Your task to perform on an android device: Go to display settings Image 0: 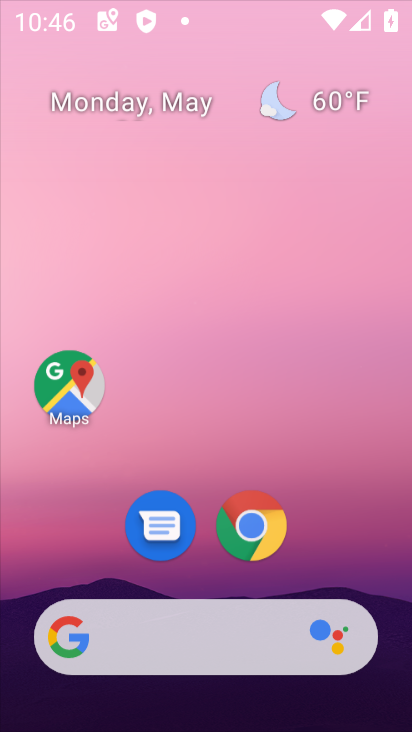
Step 0: click (246, 59)
Your task to perform on an android device: Go to display settings Image 1: 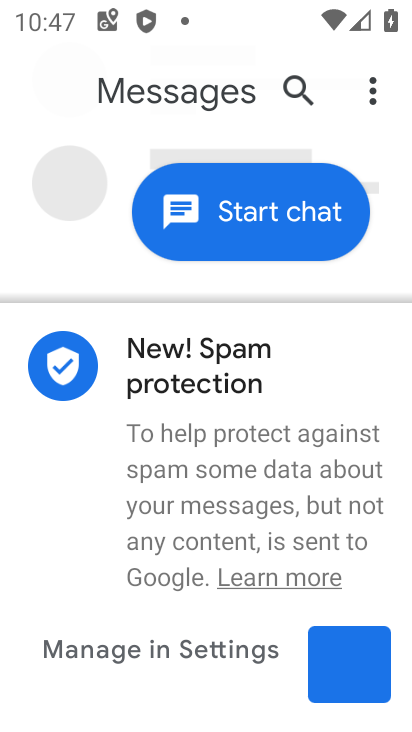
Step 1: press home button
Your task to perform on an android device: Go to display settings Image 2: 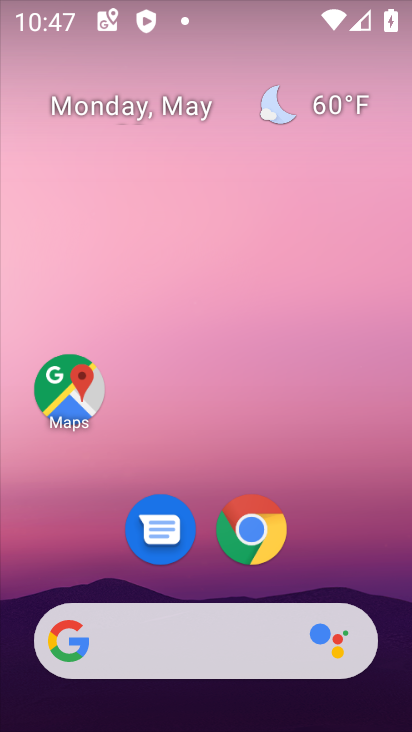
Step 2: drag from (201, 441) to (257, 42)
Your task to perform on an android device: Go to display settings Image 3: 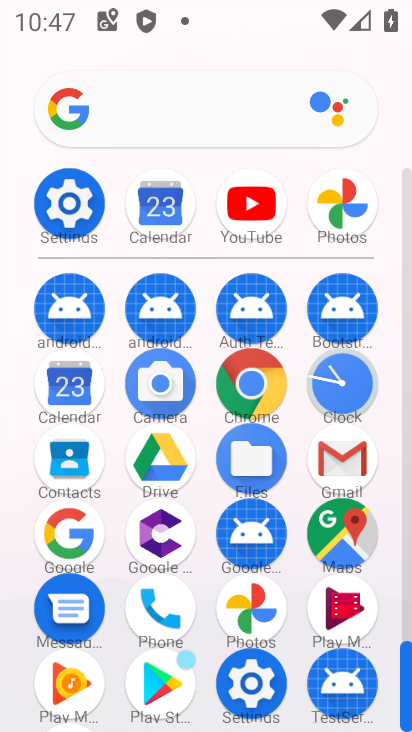
Step 3: click (61, 210)
Your task to perform on an android device: Go to display settings Image 4: 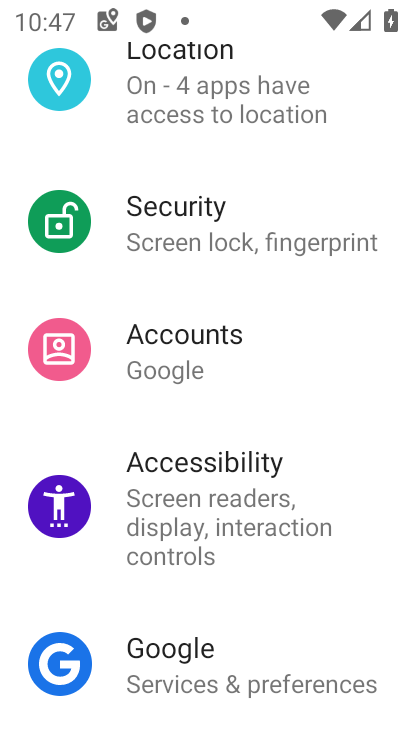
Step 4: drag from (253, 158) to (270, 554)
Your task to perform on an android device: Go to display settings Image 5: 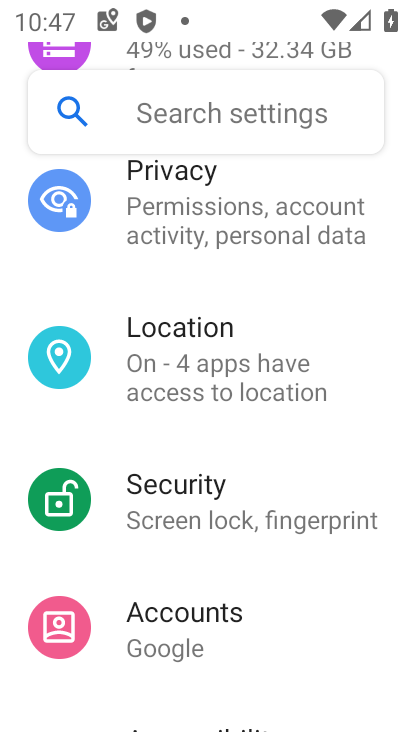
Step 5: drag from (230, 277) to (357, 709)
Your task to perform on an android device: Go to display settings Image 6: 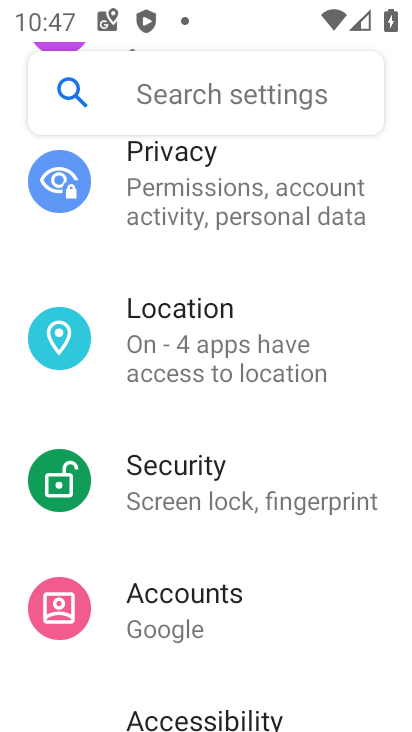
Step 6: drag from (249, 284) to (238, 631)
Your task to perform on an android device: Go to display settings Image 7: 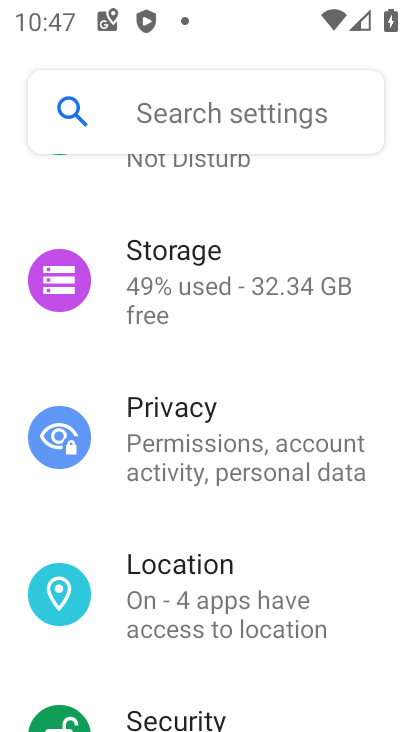
Step 7: drag from (220, 339) to (244, 721)
Your task to perform on an android device: Go to display settings Image 8: 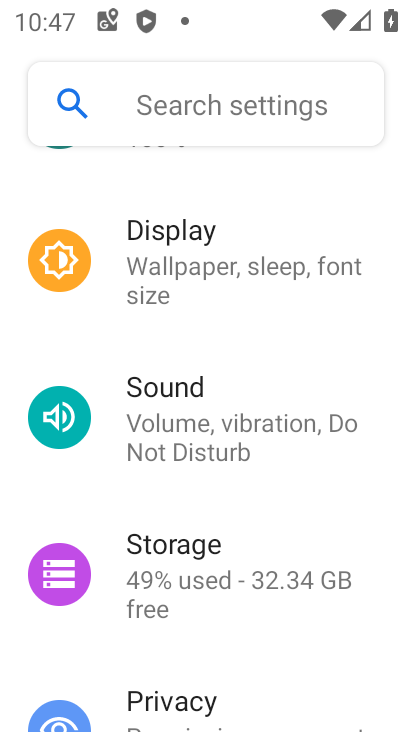
Step 8: click (176, 222)
Your task to perform on an android device: Go to display settings Image 9: 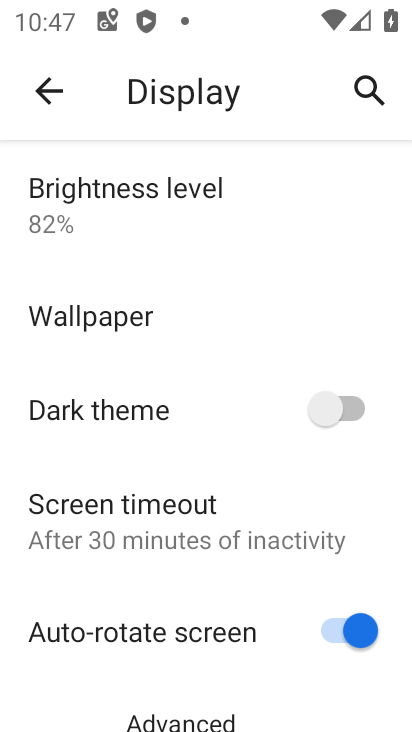
Step 9: task complete